Your task to perform on an android device: Search for Mexican restaurants on Maps Image 0: 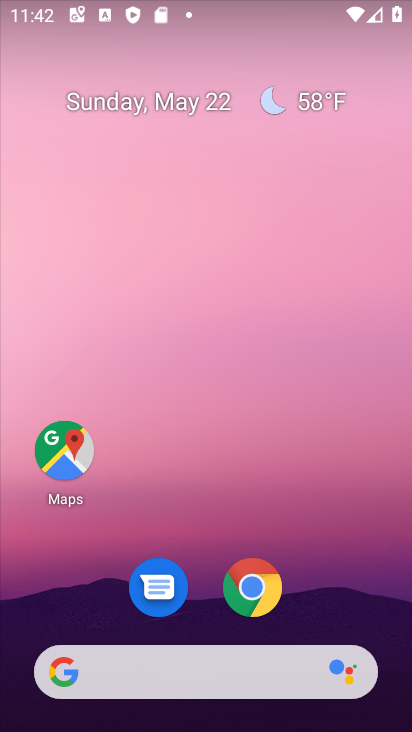
Step 0: click (71, 450)
Your task to perform on an android device: Search for Mexican restaurants on Maps Image 1: 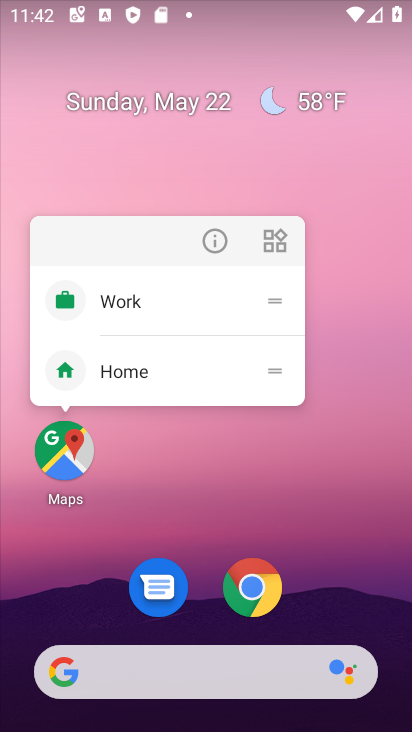
Step 1: click (71, 449)
Your task to perform on an android device: Search for Mexican restaurants on Maps Image 2: 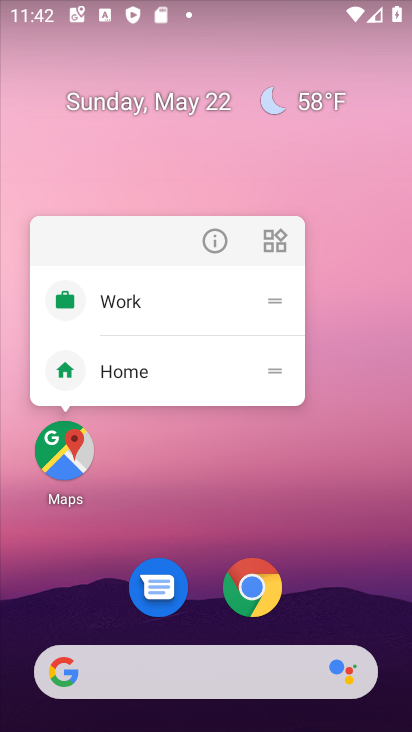
Step 2: click (71, 450)
Your task to perform on an android device: Search for Mexican restaurants on Maps Image 3: 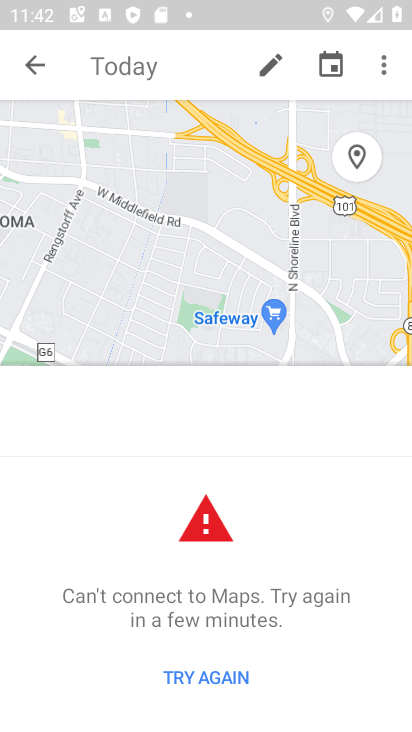
Step 3: click (216, 671)
Your task to perform on an android device: Search for Mexican restaurants on Maps Image 4: 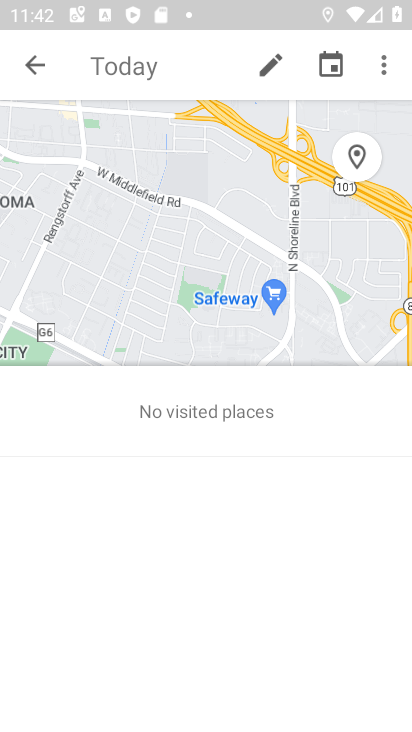
Step 4: drag from (174, 324) to (158, 579)
Your task to perform on an android device: Search for Mexican restaurants on Maps Image 5: 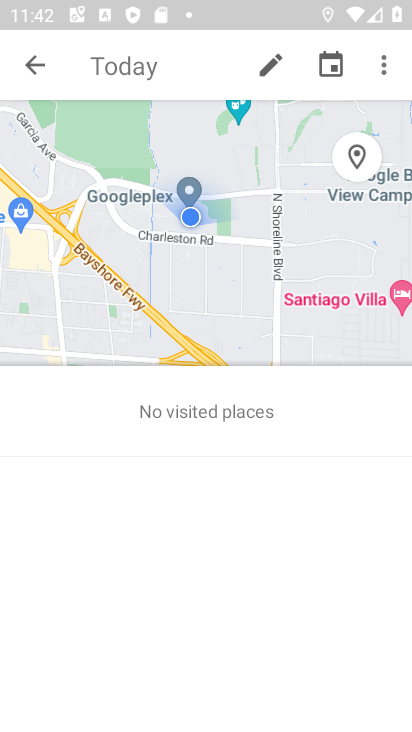
Step 5: drag from (131, 549) to (258, 485)
Your task to perform on an android device: Search for Mexican restaurants on Maps Image 6: 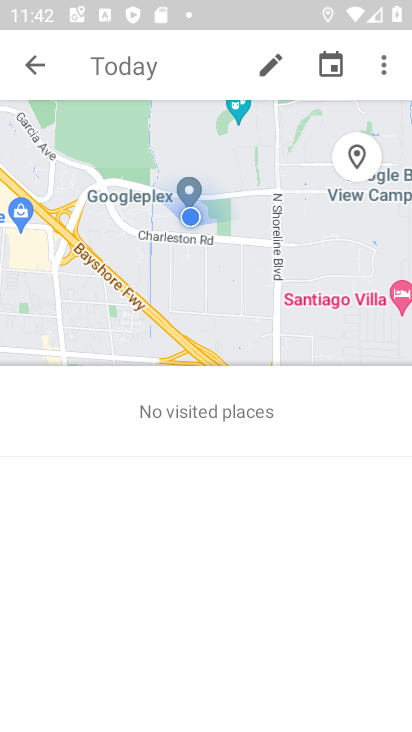
Step 6: click (39, 63)
Your task to perform on an android device: Search for Mexican restaurants on Maps Image 7: 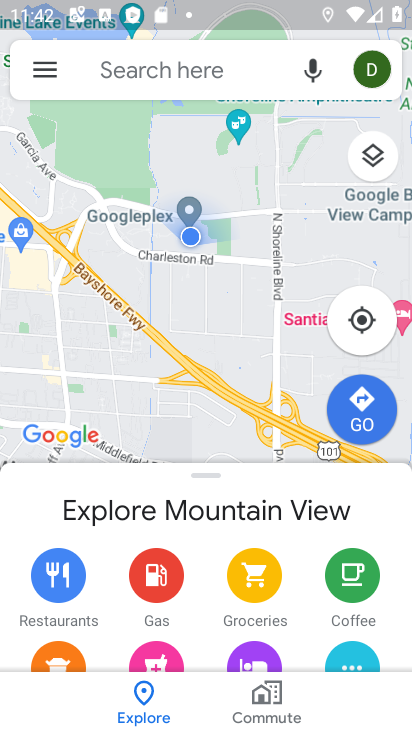
Step 7: drag from (76, 210) to (87, 420)
Your task to perform on an android device: Search for Mexican restaurants on Maps Image 8: 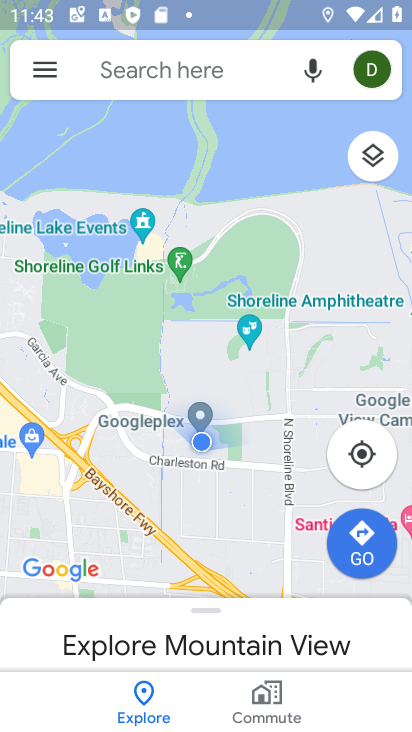
Step 8: click (227, 68)
Your task to perform on an android device: Search for Mexican restaurants on Maps Image 9: 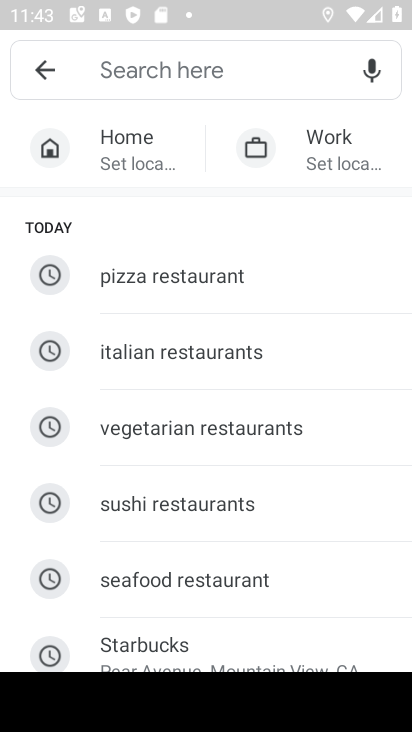
Step 9: drag from (217, 483) to (205, 427)
Your task to perform on an android device: Search for Mexican restaurants on Maps Image 10: 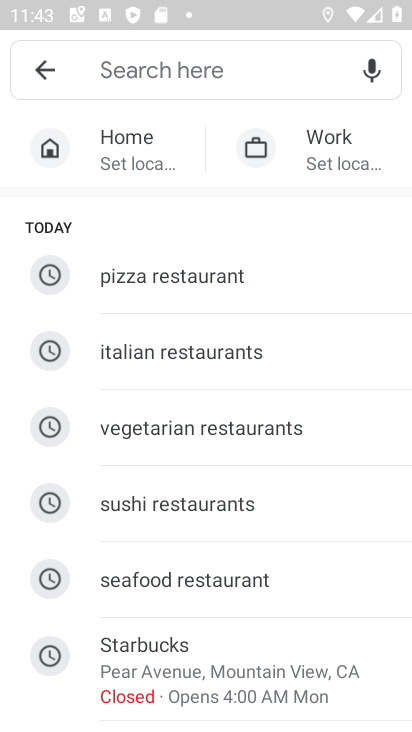
Step 10: type "mexican restaurants"
Your task to perform on an android device: Search for Mexican restaurants on Maps Image 11: 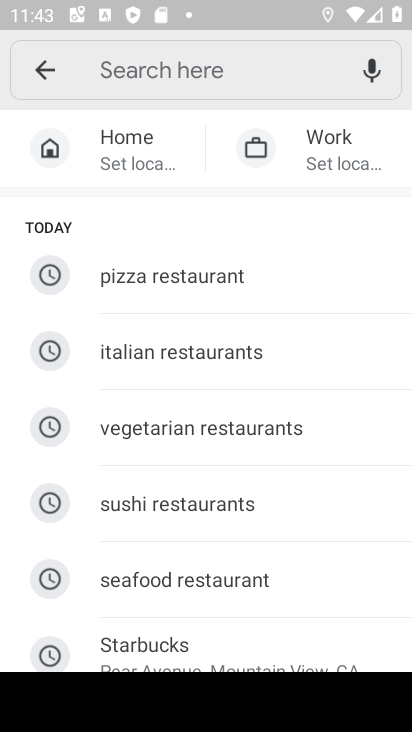
Step 11: click (226, 58)
Your task to perform on an android device: Search for Mexican restaurants on Maps Image 12: 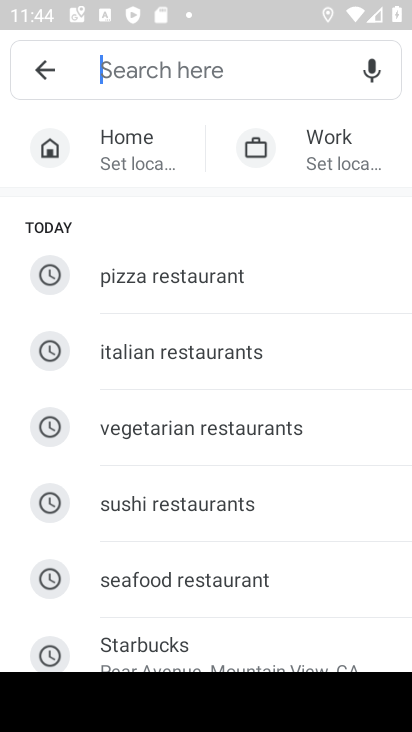
Step 12: type "mexican restayrants"
Your task to perform on an android device: Search for Mexican restaurants on Maps Image 13: 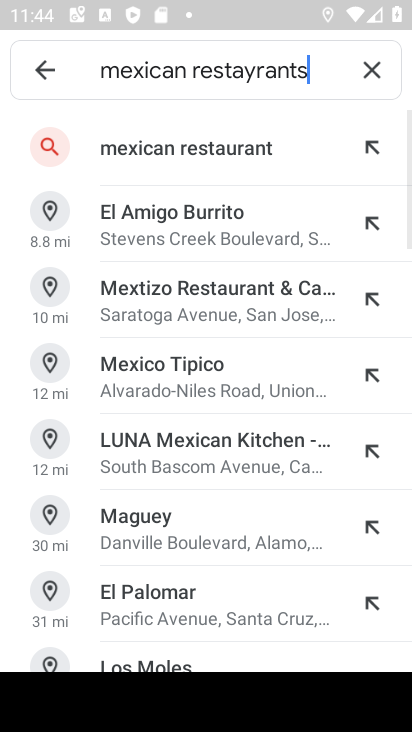
Step 13: click (261, 138)
Your task to perform on an android device: Search for Mexican restaurants on Maps Image 14: 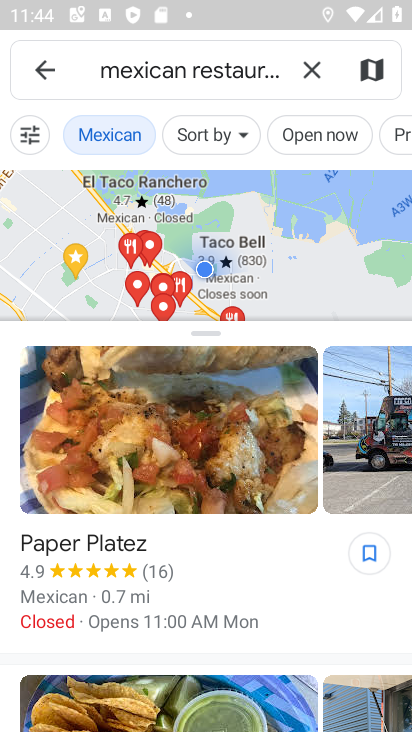
Step 14: task complete